Your task to perform on an android device: What's the weather going to be this weekend? Image 0: 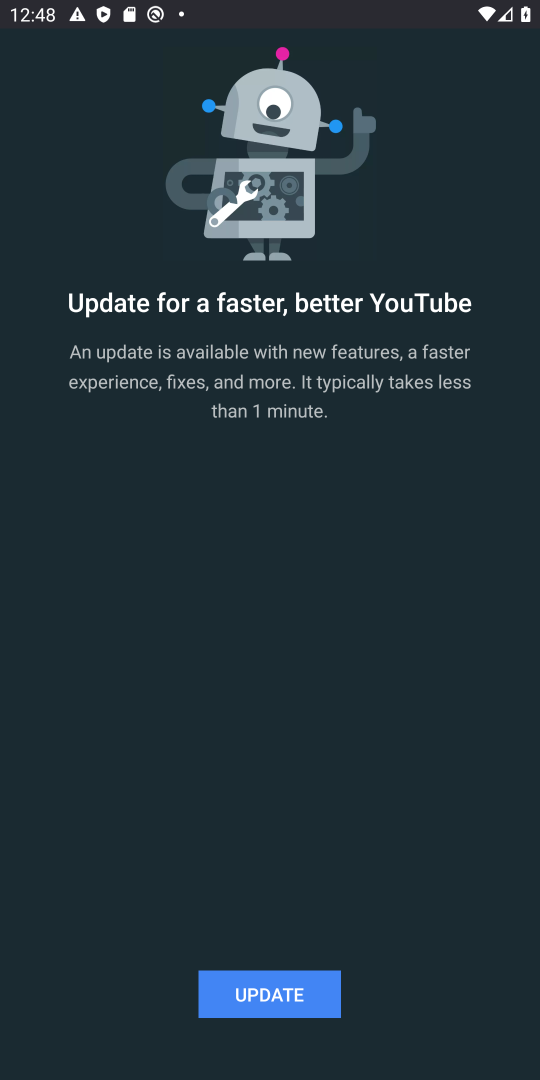
Step 0: press home button
Your task to perform on an android device: What's the weather going to be this weekend? Image 1: 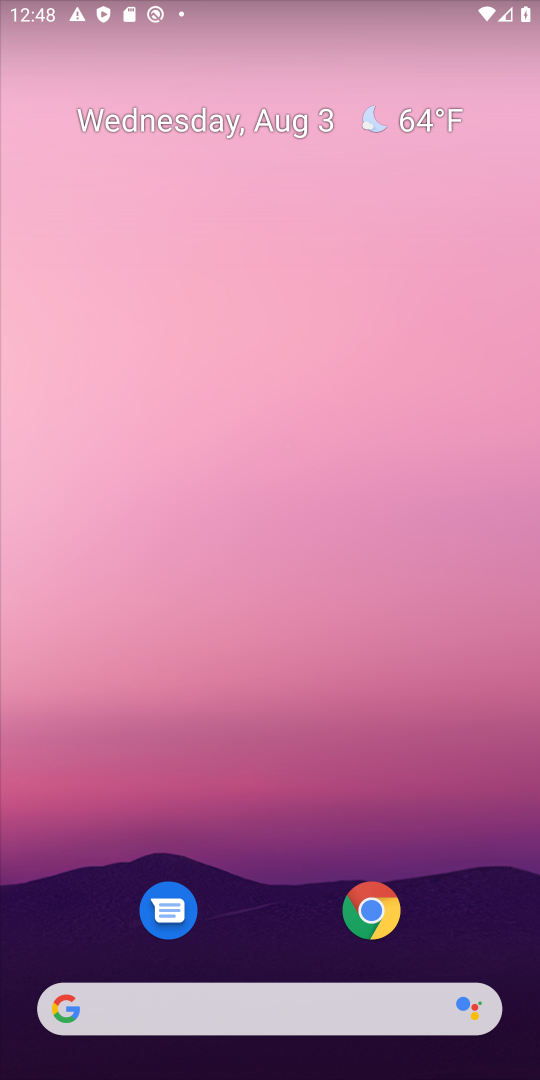
Step 1: drag from (279, 1015) to (381, 164)
Your task to perform on an android device: What's the weather going to be this weekend? Image 2: 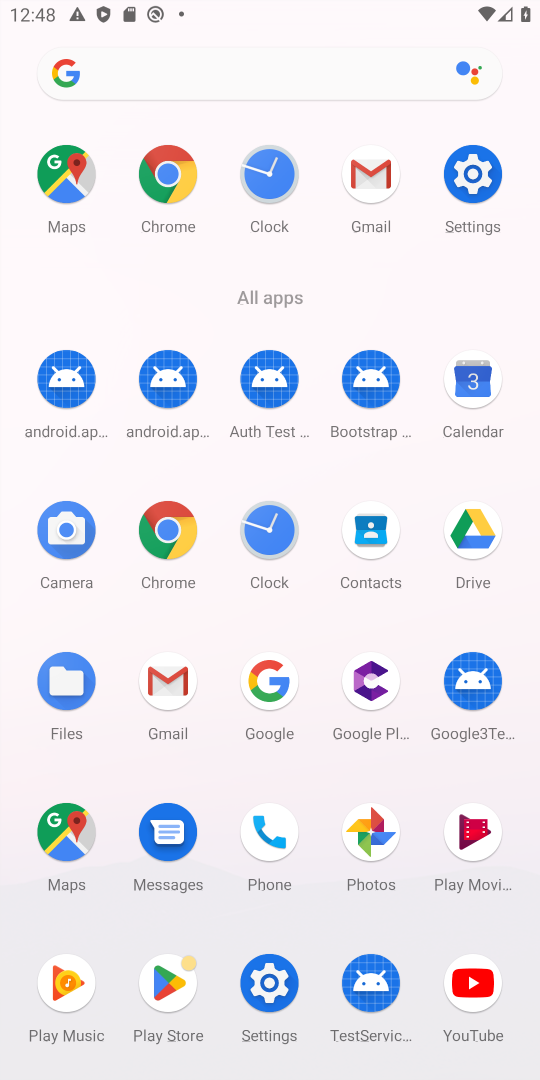
Step 2: click (274, 684)
Your task to perform on an android device: What's the weather going to be this weekend? Image 3: 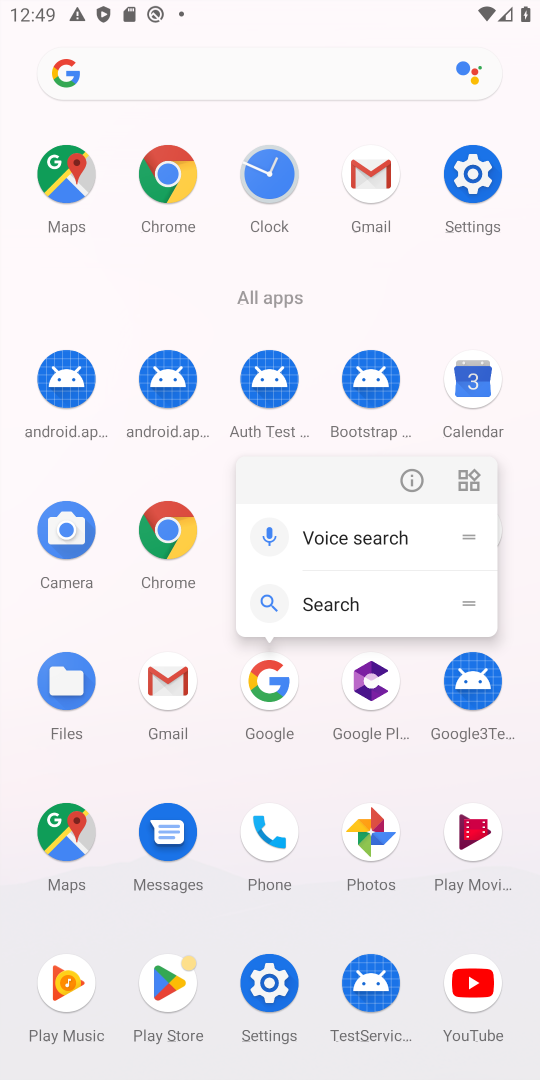
Step 3: click (163, 531)
Your task to perform on an android device: What's the weather going to be this weekend? Image 4: 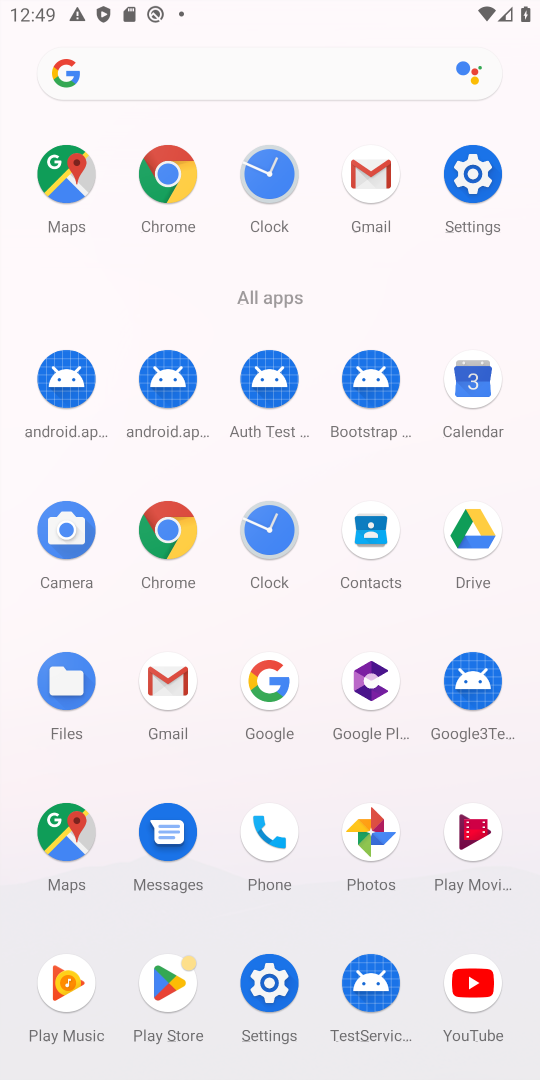
Step 4: click (184, 528)
Your task to perform on an android device: What's the weather going to be this weekend? Image 5: 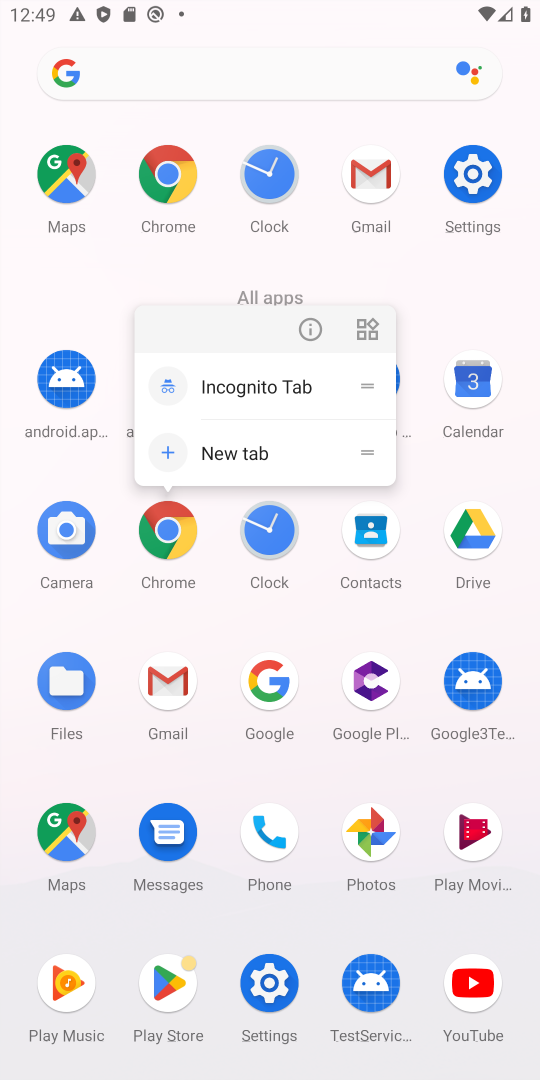
Step 5: click (184, 528)
Your task to perform on an android device: What's the weather going to be this weekend? Image 6: 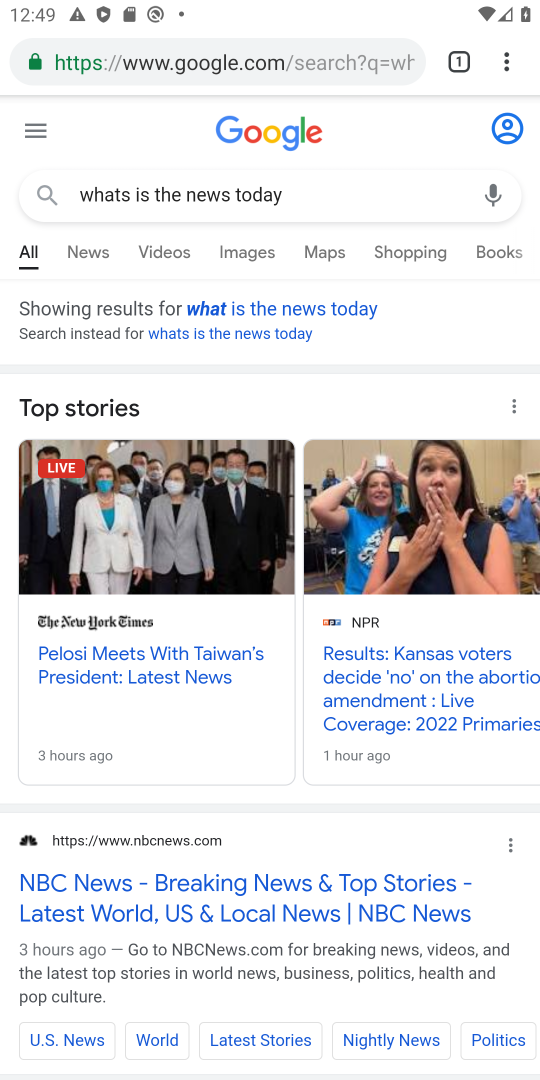
Step 6: click (291, 56)
Your task to perform on an android device: What's the weather going to be this weekend? Image 7: 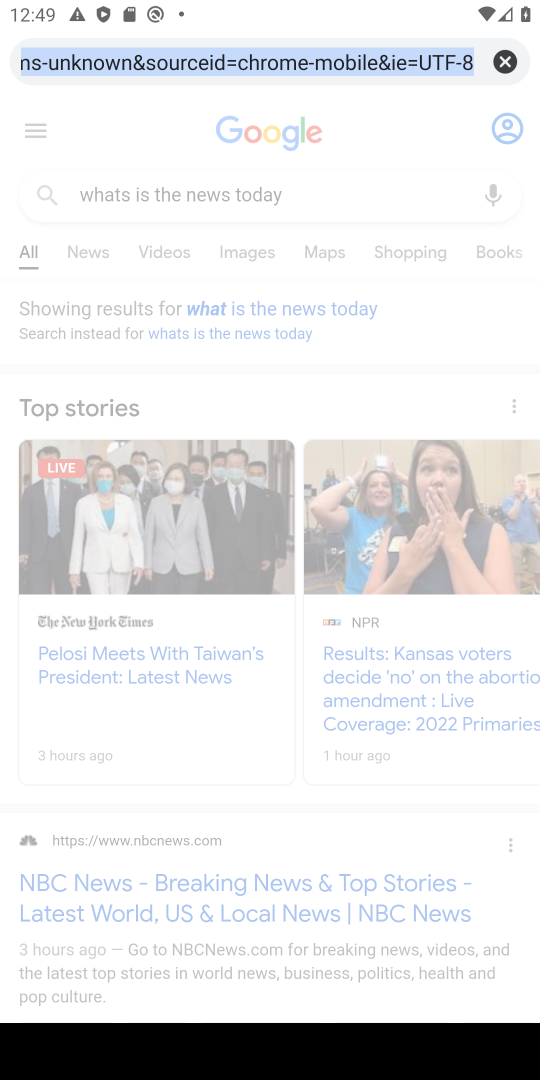
Step 7: type "weather going to be this weekend"
Your task to perform on an android device: What's the weather going to be this weekend? Image 8: 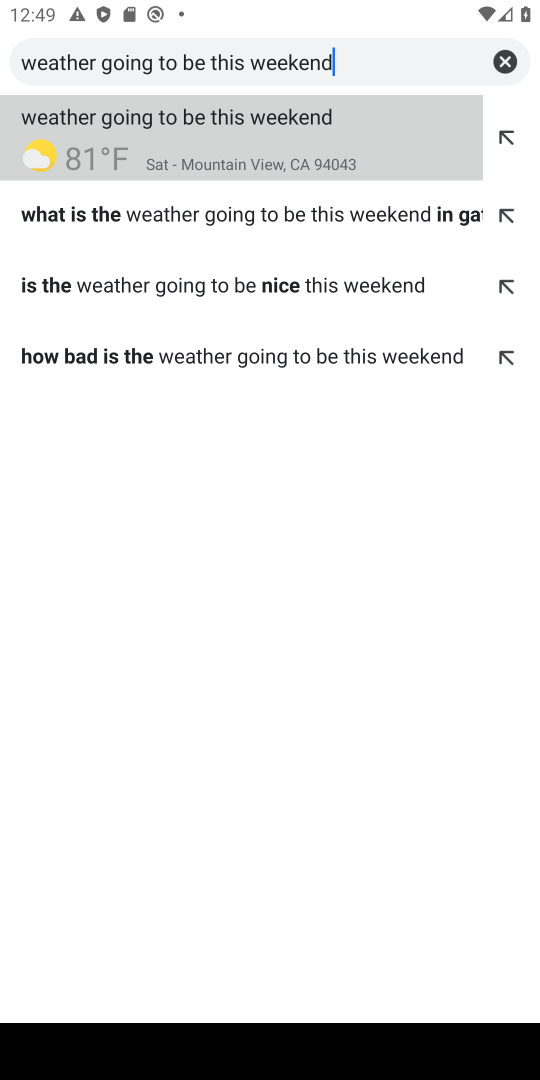
Step 8: click (234, 126)
Your task to perform on an android device: What's the weather going to be this weekend? Image 9: 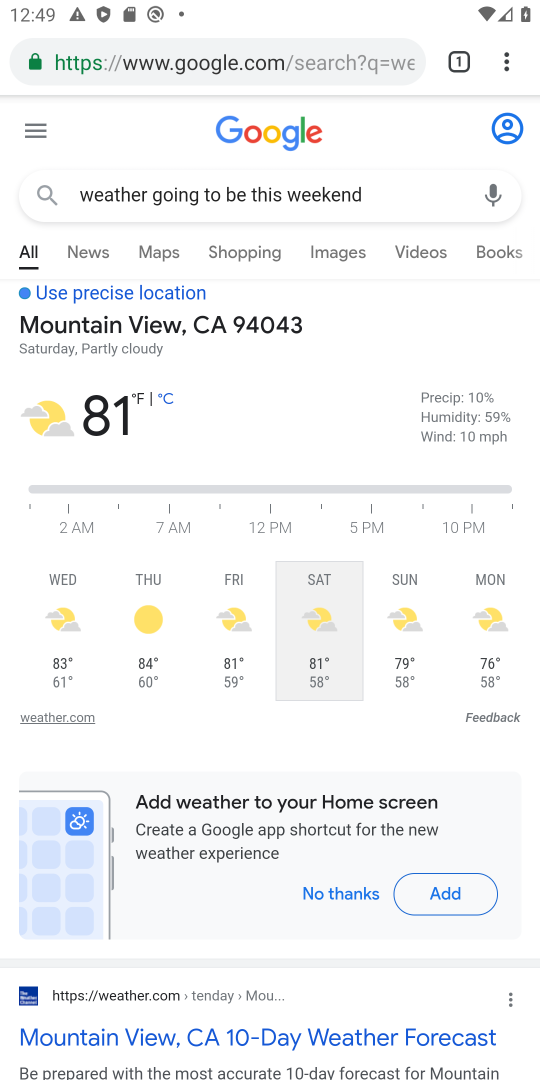
Step 9: task complete